Your task to perform on an android device: check storage Image 0: 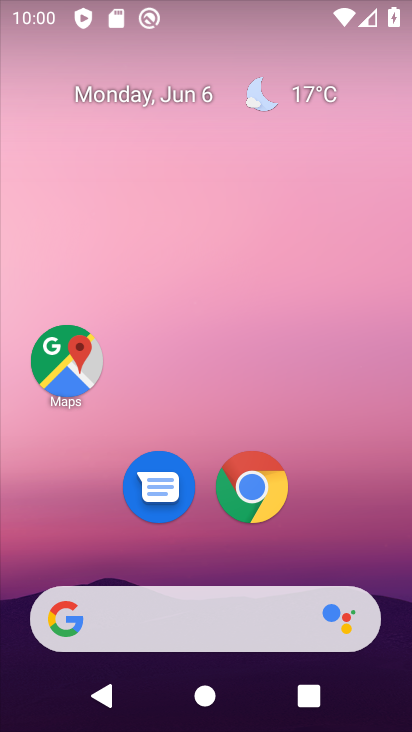
Step 0: drag from (116, 547) to (183, 74)
Your task to perform on an android device: check storage Image 1: 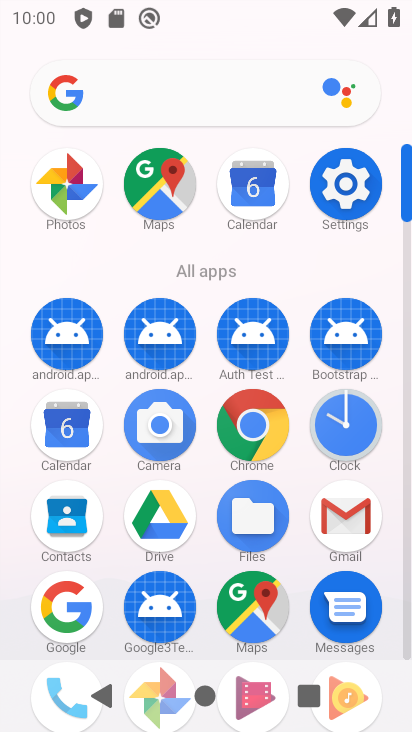
Step 1: drag from (137, 639) to (216, 273)
Your task to perform on an android device: check storage Image 2: 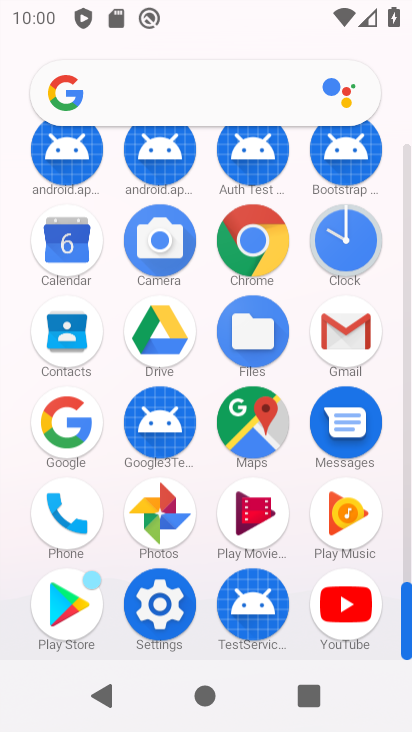
Step 2: click (164, 593)
Your task to perform on an android device: check storage Image 3: 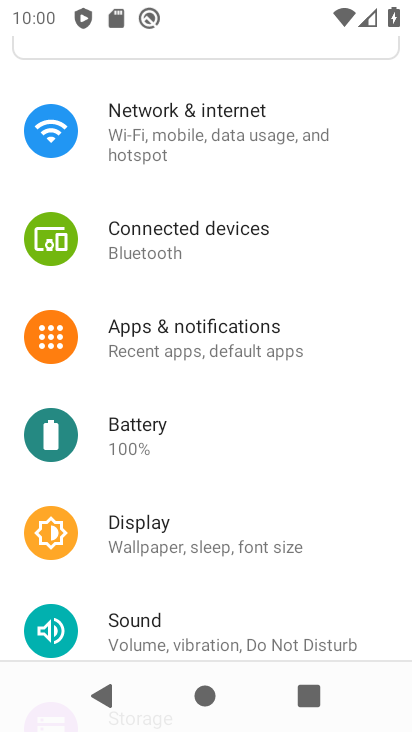
Step 3: drag from (165, 568) to (254, 165)
Your task to perform on an android device: check storage Image 4: 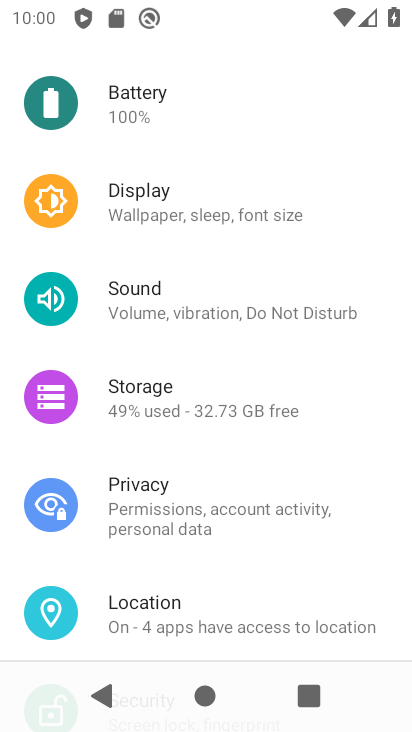
Step 4: click (186, 417)
Your task to perform on an android device: check storage Image 5: 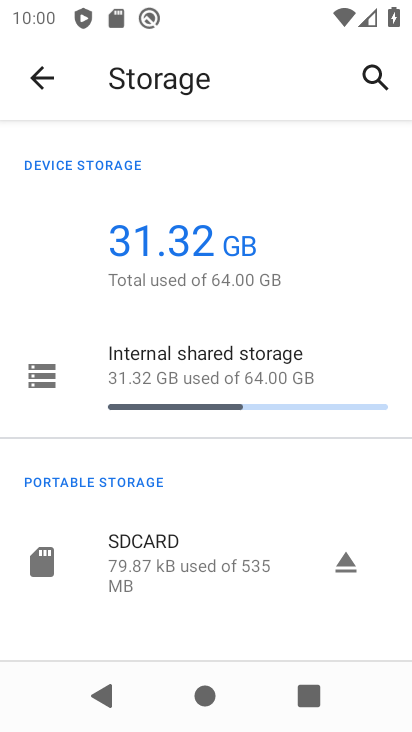
Step 5: click (186, 417)
Your task to perform on an android device: check storage Image 6: 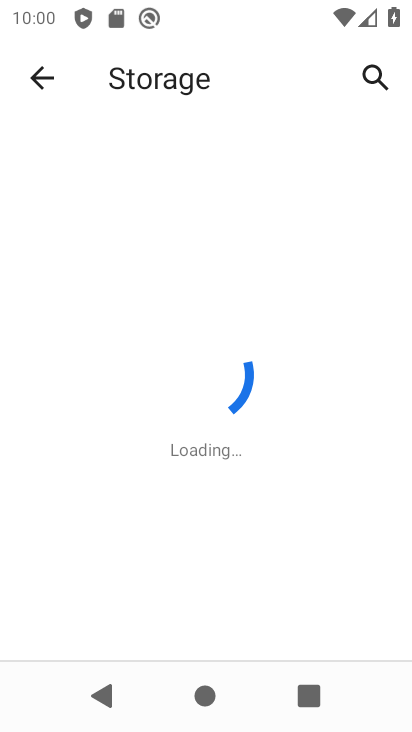
Step 6: task complete